Your task to perform on an android device: set the timer Image 0: 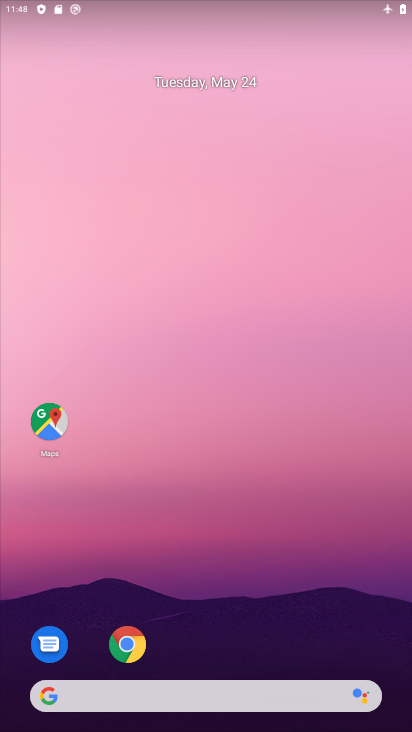
Step 0: drag from (264, 553) to (200, 207)
Your task to perform on an android device: set the timer Image 1: 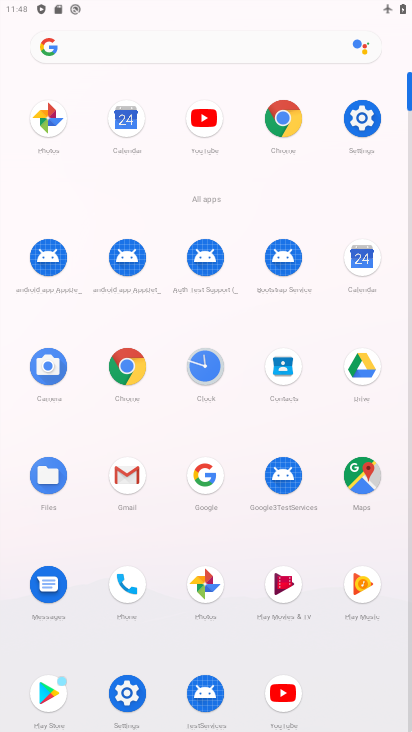
Step 1: click (205, 368)
Your task to perform on an android device: set the timer Image 2: 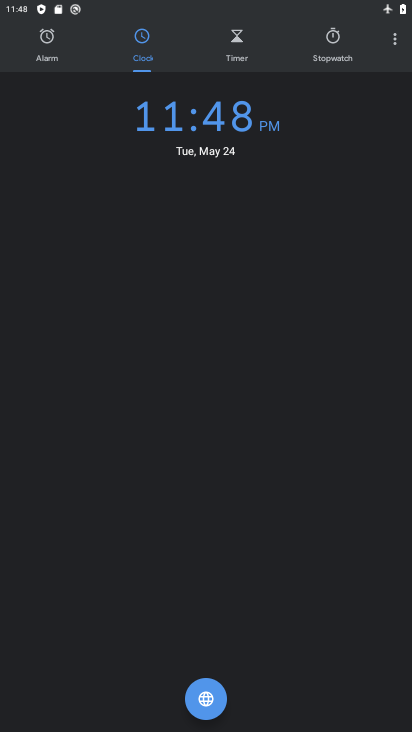
Step 2: click (242, 28)
Your task to perform on an android device: set the timer Image 3: 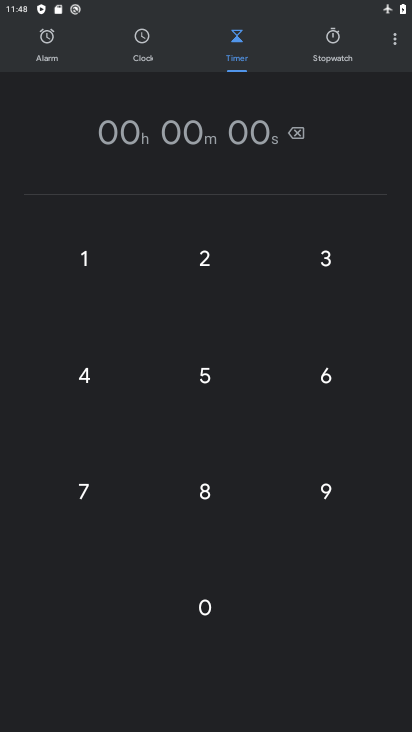
Step 3: click (87, 249)
Your task to perform on an android device: set the timer Image 4: 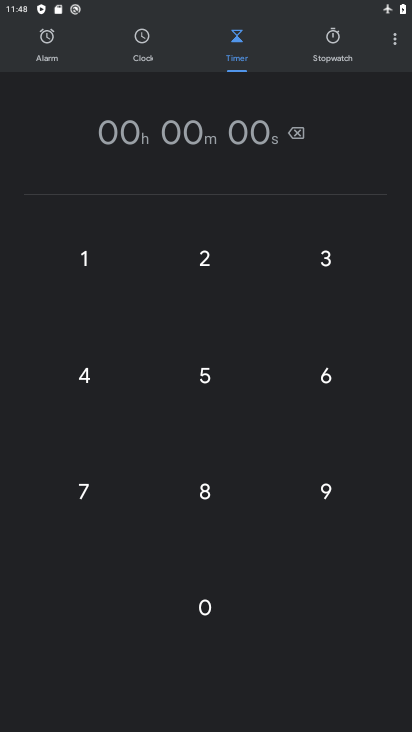
Step 4: click (87, 249)
Your task to perform on an android device: set the timer Image 5: 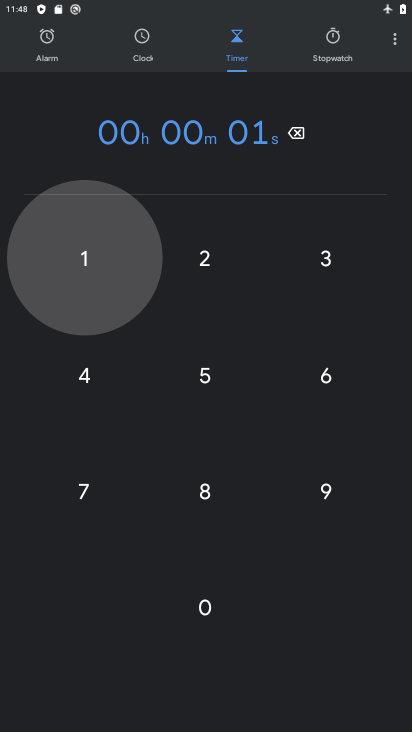
Step 5: click (87, 249)
Your task to perform on an android device: set the timer Image 6: 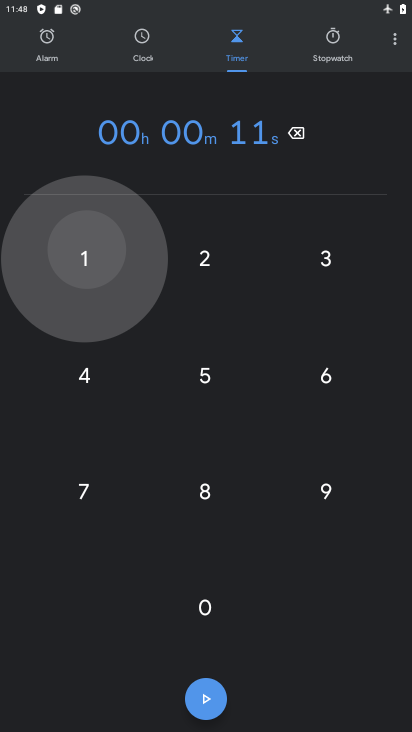
Step 6: click (87, 249)
Your task to perform on an android device: set the timer Image 7: 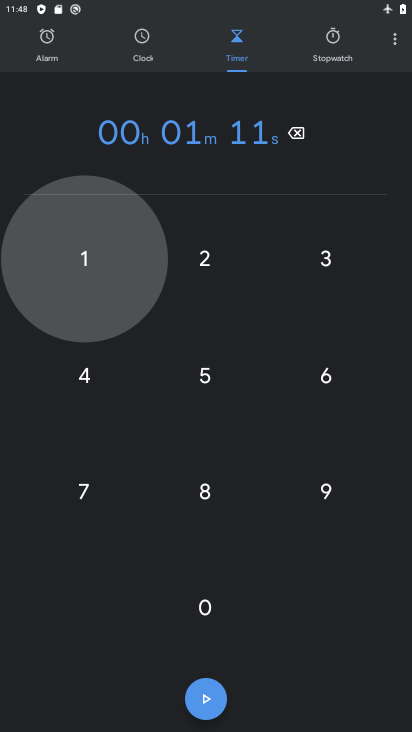
Step 7: click (87, 249)
Your task to perform on an android device: set the timer Image 8: 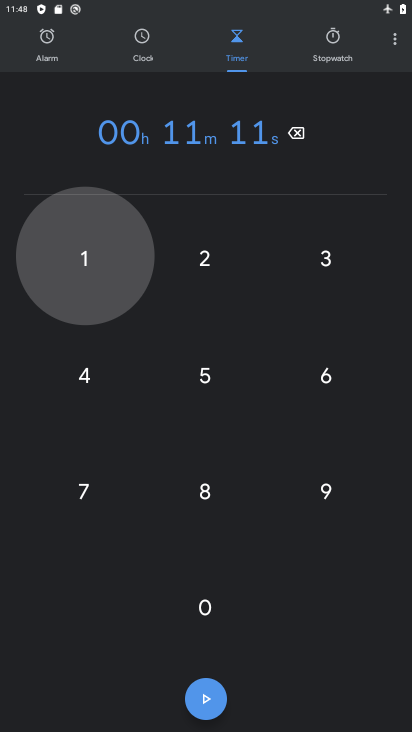
Step 8: click (87, 249)
Your task to perform on an android device: set the timer Image 9: 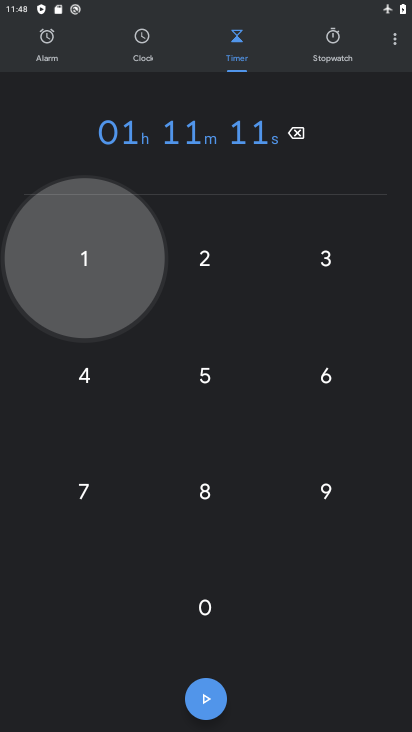
Step 9: click (87, 249)
Your task to perform on an android device: set the timer Image 10: 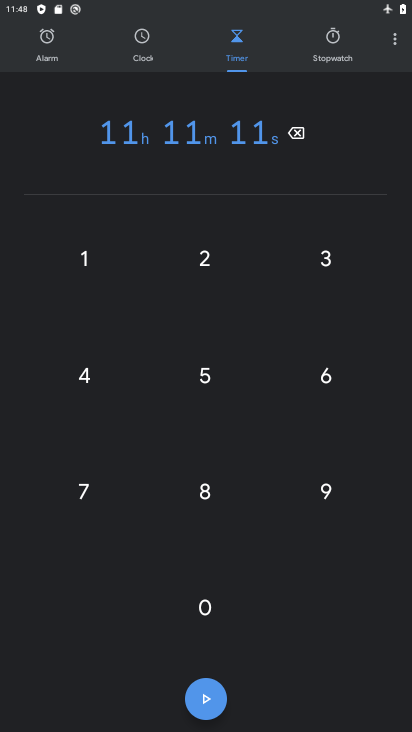
Step 10: task complete